Your task to perform on an android device: Open settings on Google Maps Image 0: 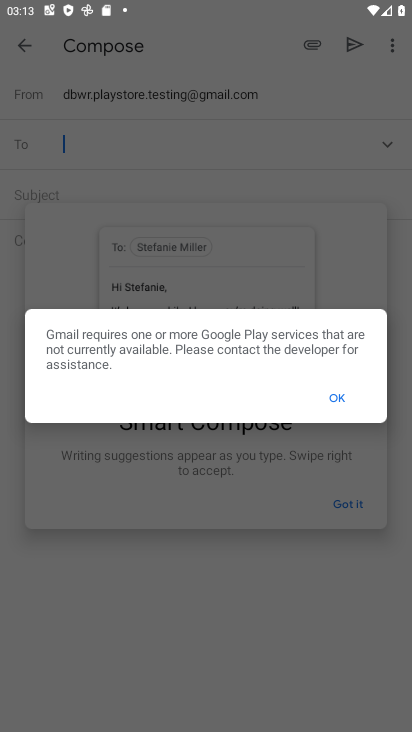
Step 0: press home button
Your task to perform on an android device: Open settings on Google Maps Image 1: 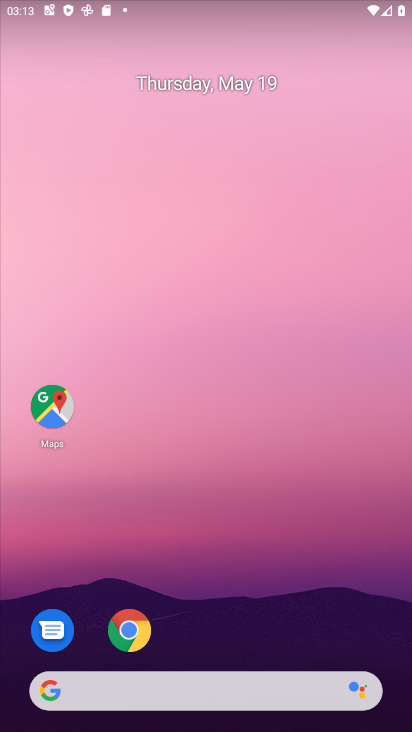
Step 1: click (55, 402)
Your task to perform on an android device: Open settings on Google Maps Image 2: 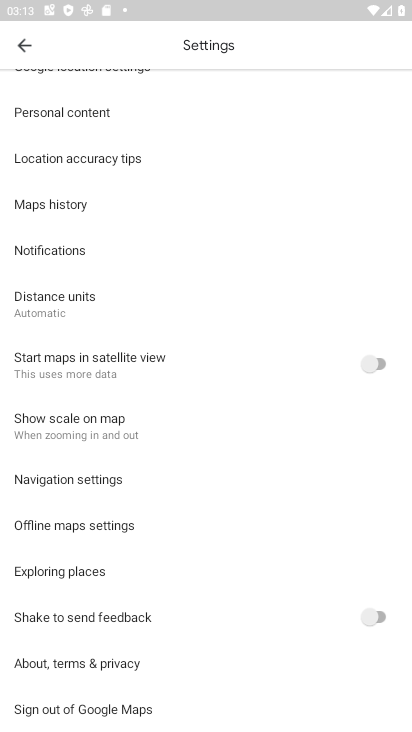
Step 2: task complete